Your task to perform on an android device: Search for seafood restaurants on Google Maps Image 0: 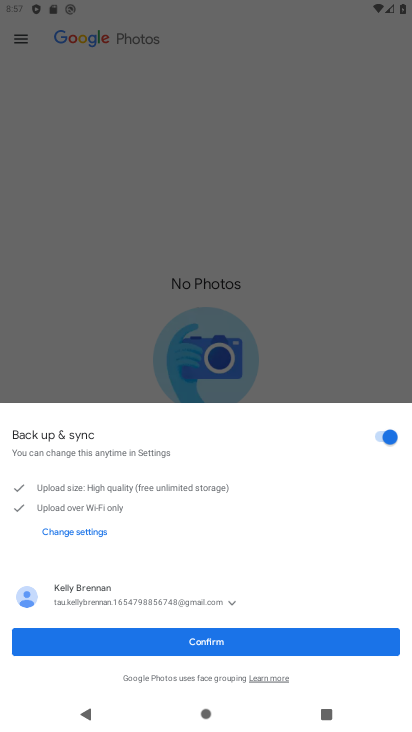
Step 0: press home button
Your task to perform on an android device: Search for seafood restaurants on Google Maps Image 1: 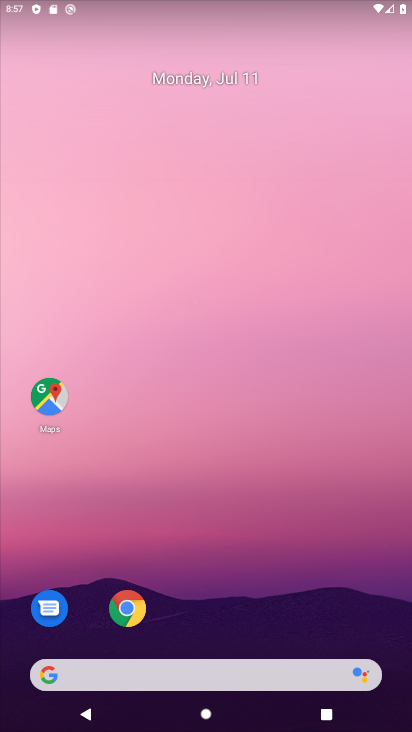
Step 1: drag from (212, 663) to (186, 179)
Your task to perform on an android device: Search for seafood restaurants on Google Maps Image 2: 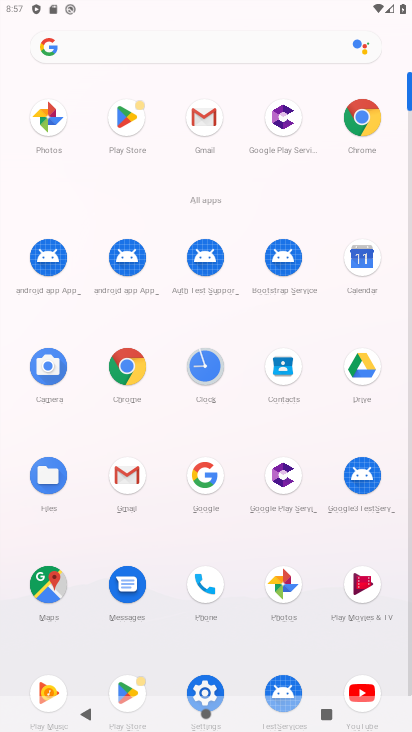
Step 2: click (55, 592)
Your task to perform on an android device: Search for seafood restaurants on Google Maps Image 3: 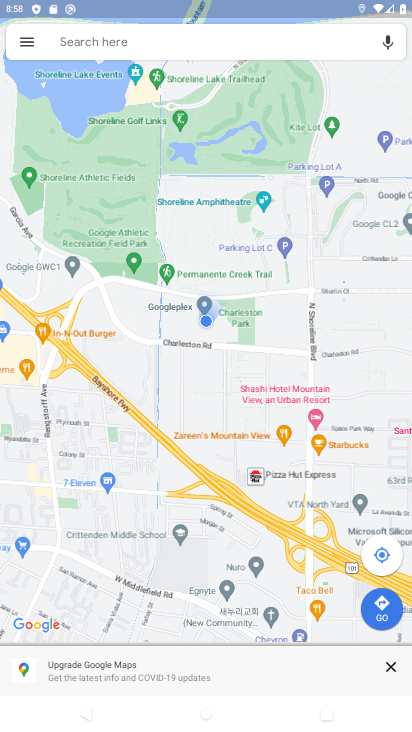
Step 3: click (175, 43)
Your task to perform on an android device: Search for seafood restaurants on Google Maps Image 4: 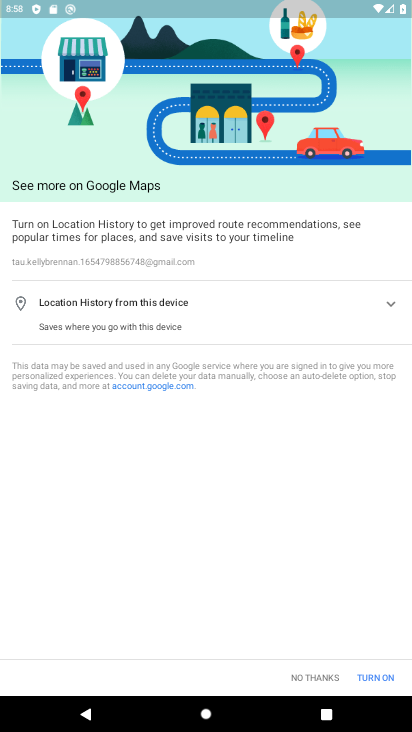
Step 4: click (388, 684)
Your task to perform on an android device: Search for seafood restaurants on Google Maps Image 5: 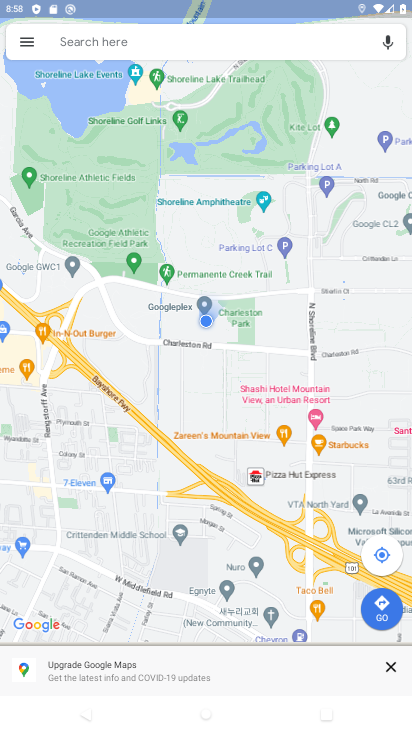
Step 5: click (217, 45)
Your task to perform on an android device: Search for seafood restaurants on Google Maps Image 6: 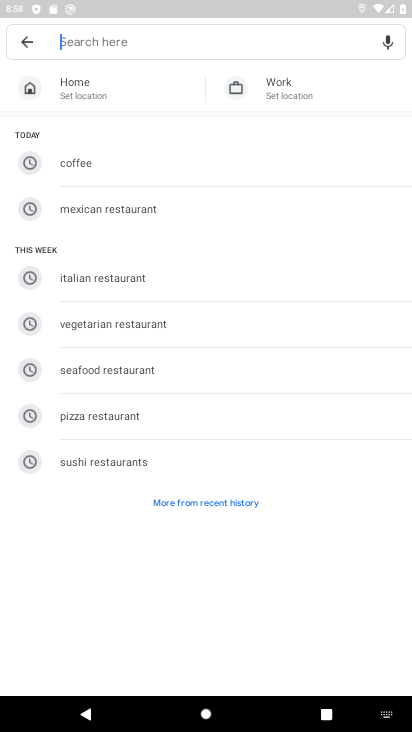
Step 6: click (110, 368)
Your task to perform on an android device: Search for seafood restaurants on Google Maps Image 7: 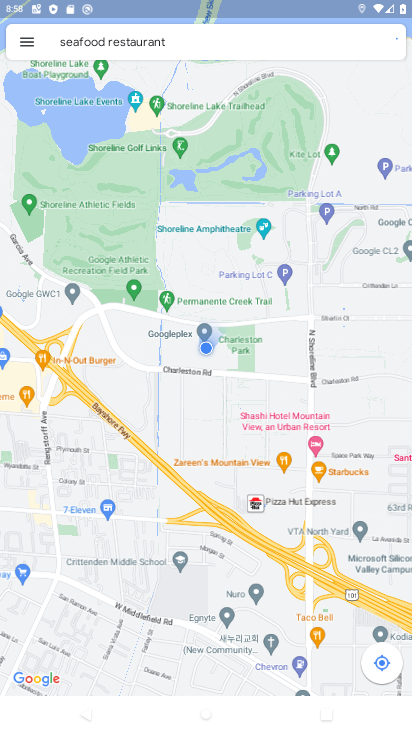
Step 7: task complete